Your task to perform on an android device: open a bookmark in the chrome app Image 0: 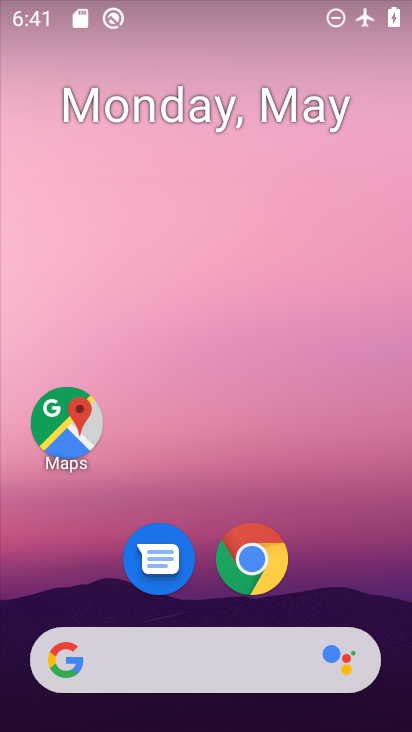
Step 0: click (254, 555)
Your task to perform on an android device: open a bookmark in the chrome app Image 1: 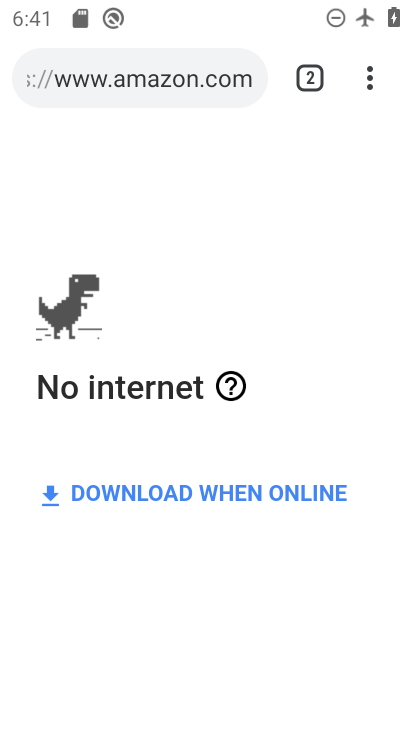
Step 1: click (367, 80)
Your task to perform on an android device: open a bookmark in the chrome app Image 2: 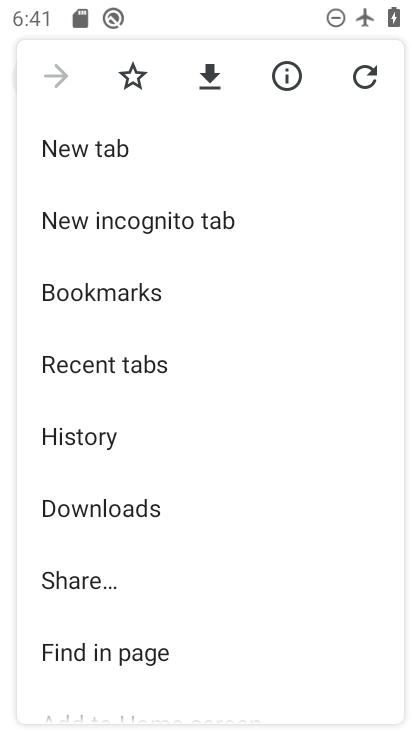
Step 2: click (97, 295)
Your task to perform on an android device: open a bookmark in the chrome app Image 3: 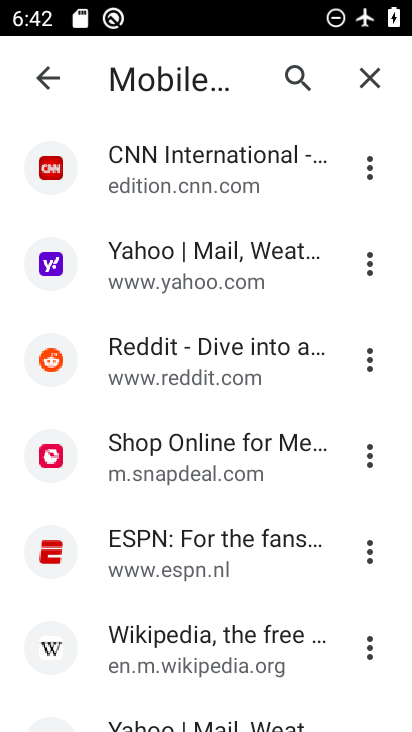
Step 3: task complete